Your task to perform on an android device: make emails show in primary in the gmail app Image 0: 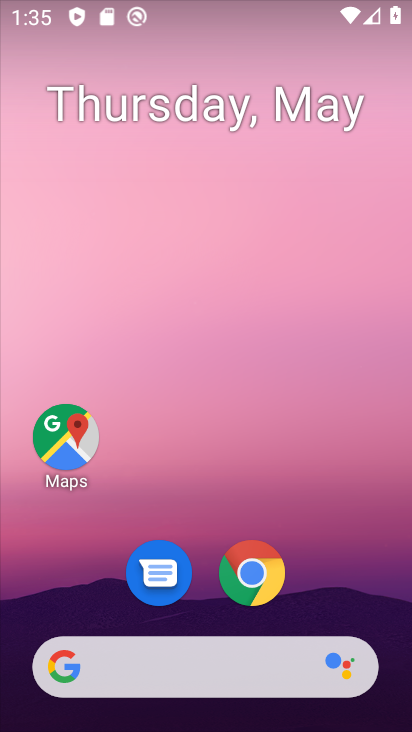
Step 0: drag from (307, 587) to (331, 305)
Your task to perform on an android device: make emails show in primary in the gmail app Image 1: 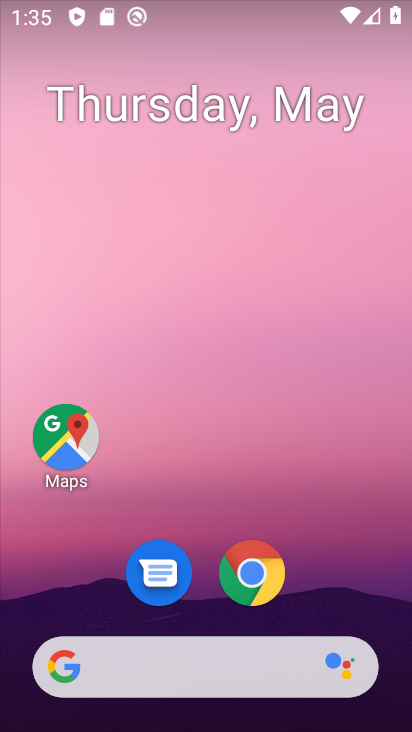
Step 1: drag from (311, 570) to (354, 292)
Your task to perform on an android device: make emails show in primary in the gmail app Image 2: 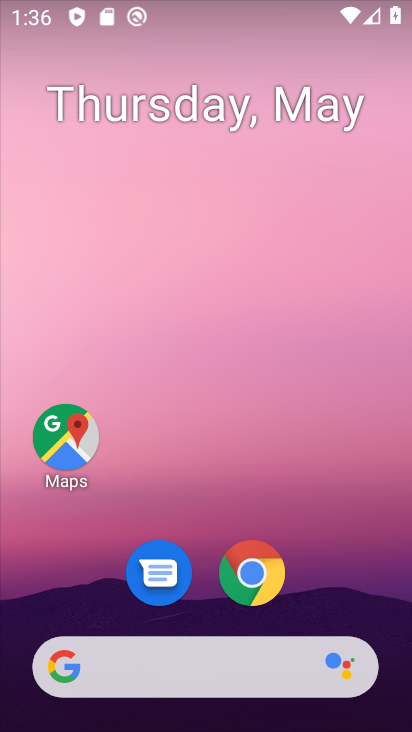
Step 2: drag from (320, 563) to (329, 296)
Your task to perform on an android device: make emails show in primary in the gmail app Image 3: 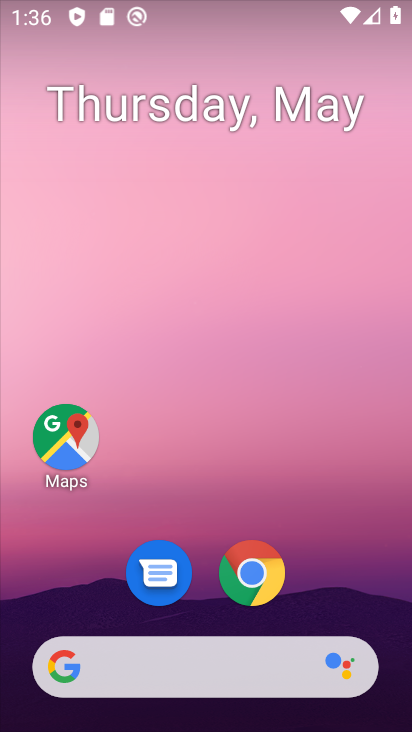
Step 3: drag from (268, 683) to (297, 437)
Your task to perform on an android device: make emails show in primary in the gmail app Image 4: 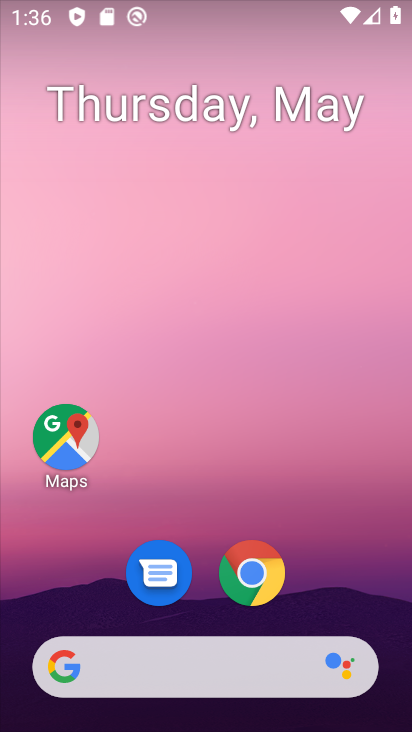
Step 4: drag from (310, 609) to (363, 249)
Your task to perform on an android device: make emails show in primary in the gmail app Image 5: 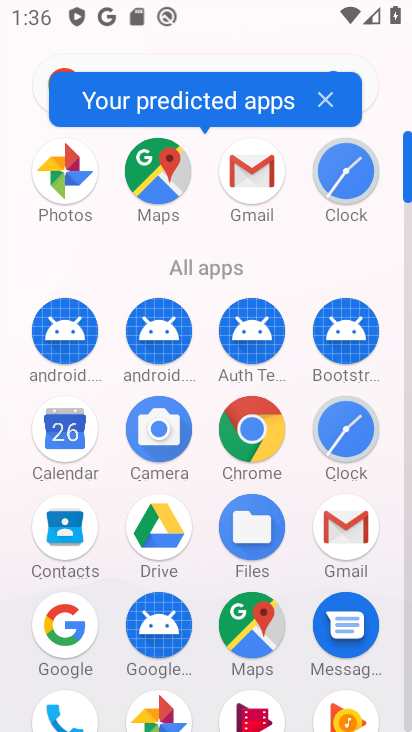
Step 5: click (254, 187)
Your task to perform on an android device: make emails show in primary in the gmail app Image 6: 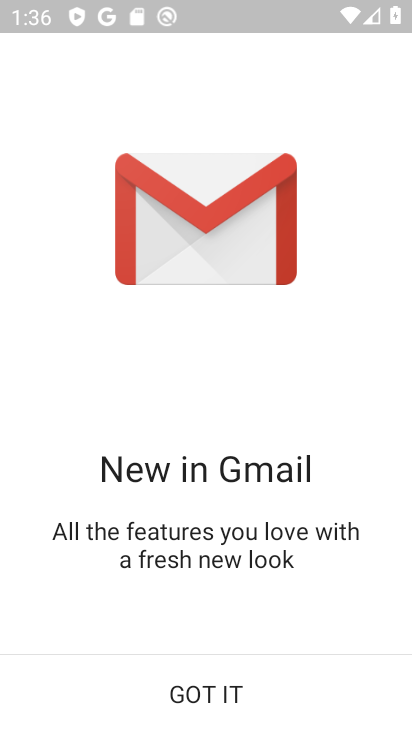
Step 6: click (196, 684)
Your task to perform on an android device: make emails show in primary in the gmail app Image 7: 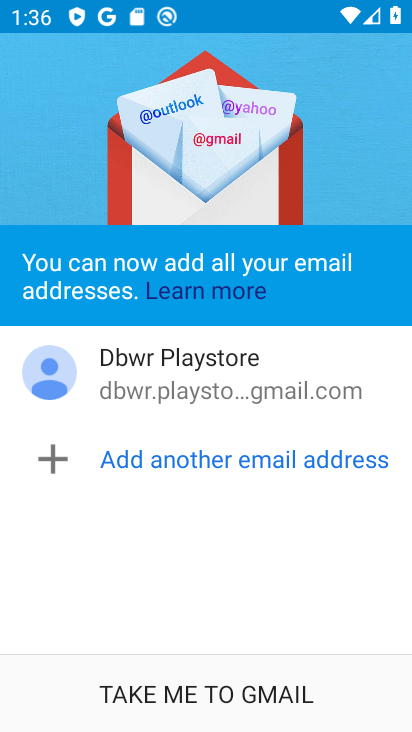
Step 7: click (205, 683)
Your task to perform on an android device: make emails show in primary in the gmail app Image 8: 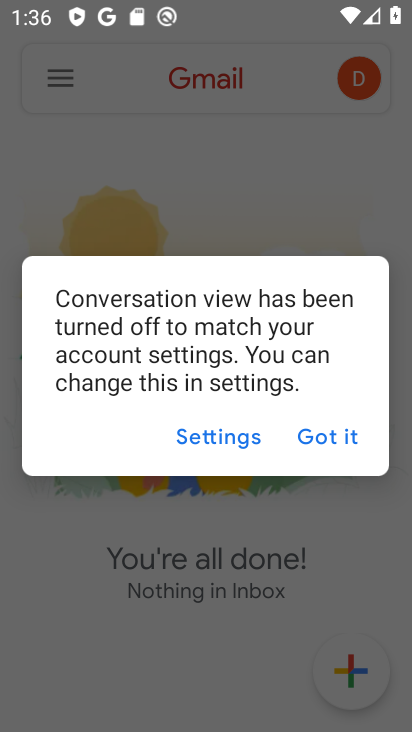
Step 8: click (225, 433)
Your task to perform on an android device: make emails show in primary in the gmail app Image 9: 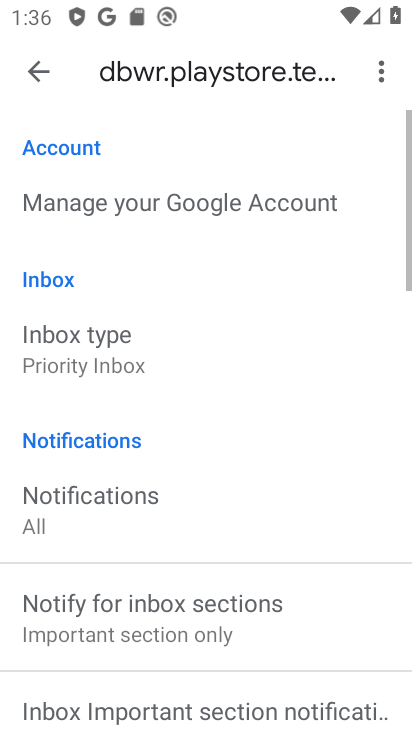
Step 9: task complete